Your task to perform on an android device: What's the weather going to be this weekend? Image 0: 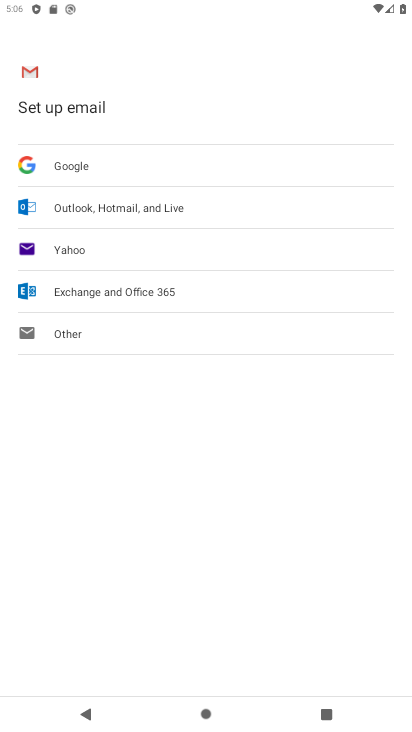
Step 0: press home button
Your task to perform on an android device: What's the weather going to be this weekend? Image 1: 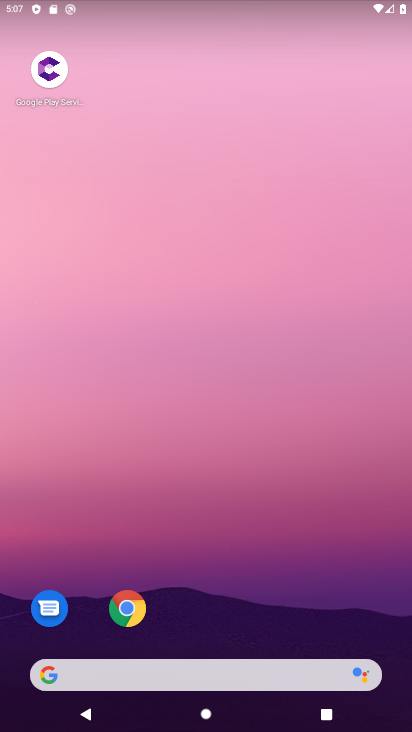
Step 1: drag from (335, 614) to (306, 12)
Your task to perform on an android device: What's the weather going to be this weekend? Image 2: 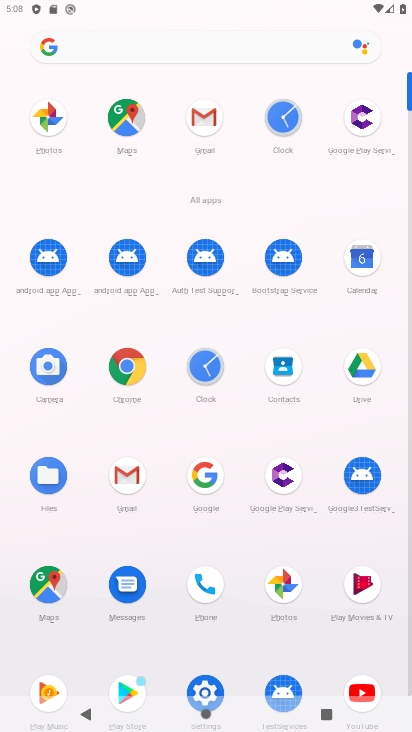
Step 2: click (122, 372)
Your task to perform on an android device: What's the weather going to be this weekend? Image 3: 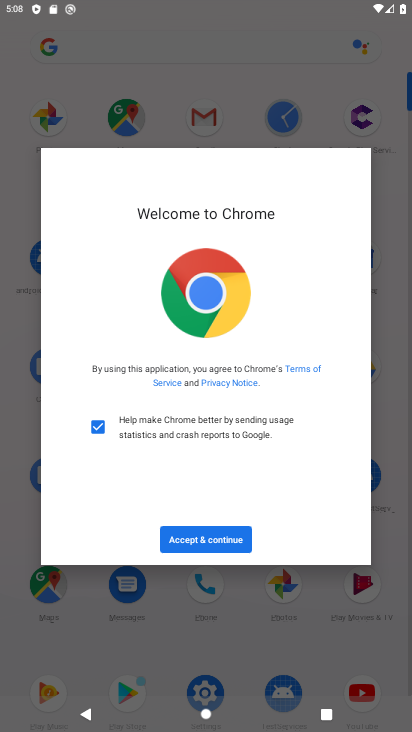
Step 3: click (199, 546)
Your task to perform on an android device: What's the weather going to be this weekend? Image 4: 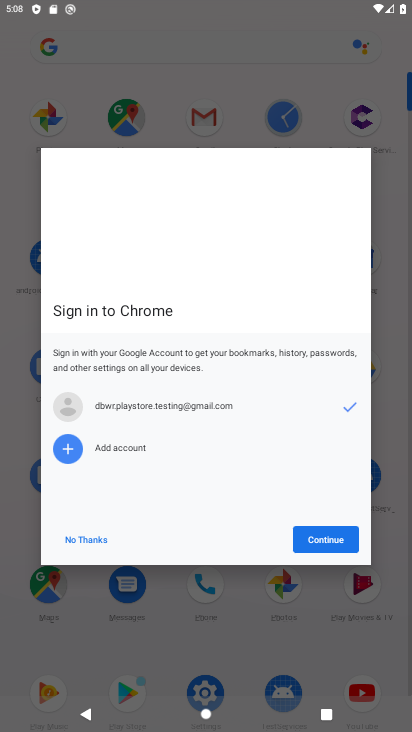
Step 4: click (337, 536)
Your task to perform on an android device: What's the weather going to be this weekend? Image 5: 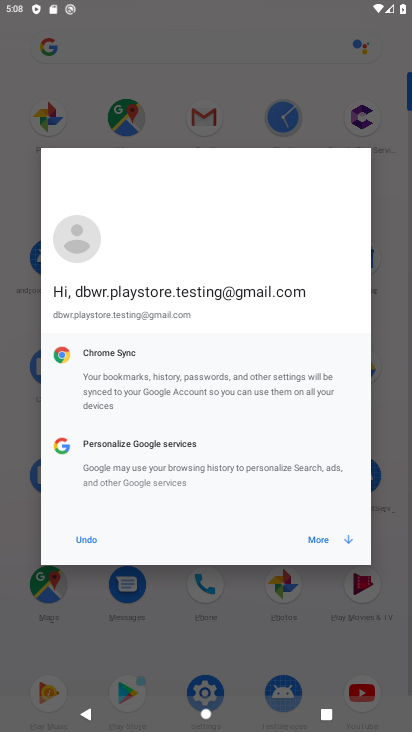
Step 5: click (323, 539)
Your task to perform on an android device: What's the weather going to be this weekend? Image 6: 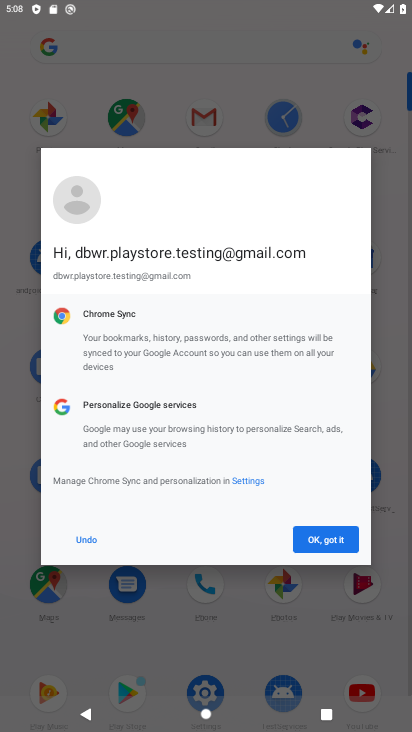
Step 6: click (323, 539)
Your task to perform on an android device: What's the weather going to be this weekend? Image 7: 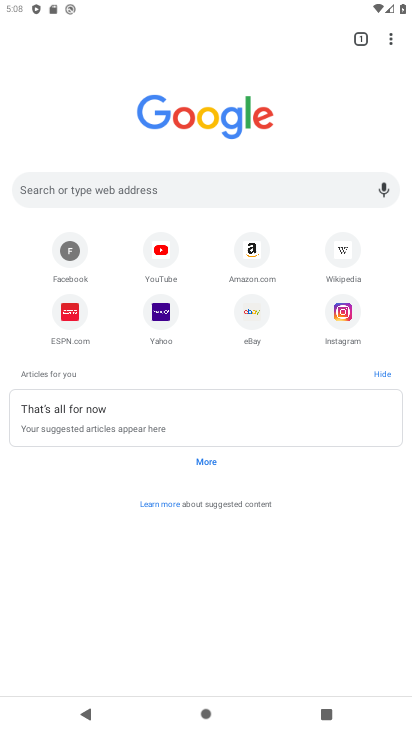
Step 7: click (205, 196)
Your task to perform on an android device: What's the weather going to be this weekend? Image 8: 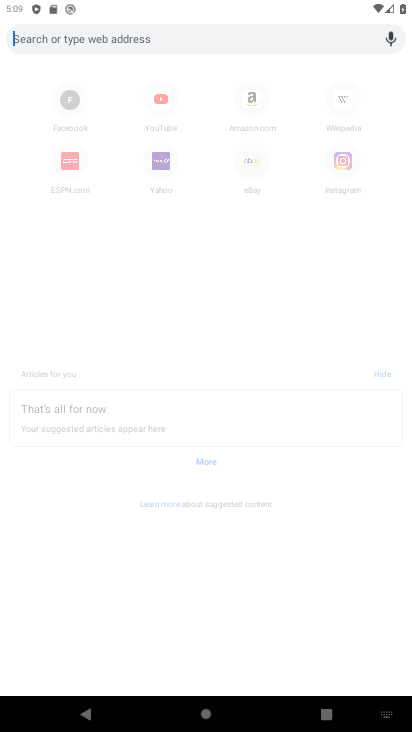
Step 8: type "What's the weather going to be this weekend?"
Your task to perform on an android device: What's the weather going to be this weekend? Image 9: 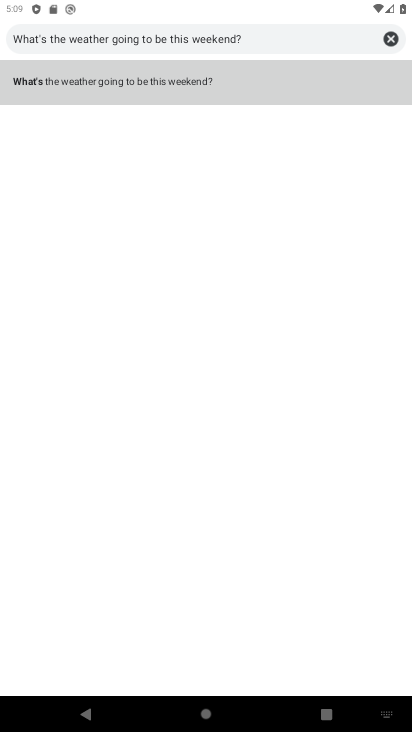
Step 9: click (132, 83)
Your task to perform on an android device: What's the weather going to be this weekend? Image 10: 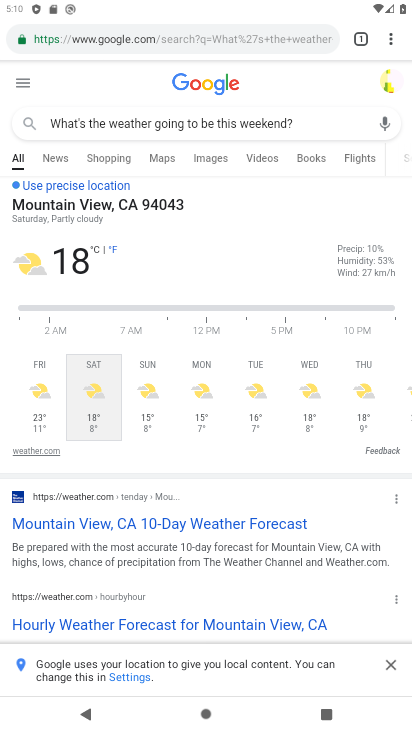
Step 10: task complete